Your task to perform on an android device: turn off notifications in google photos Image 0: 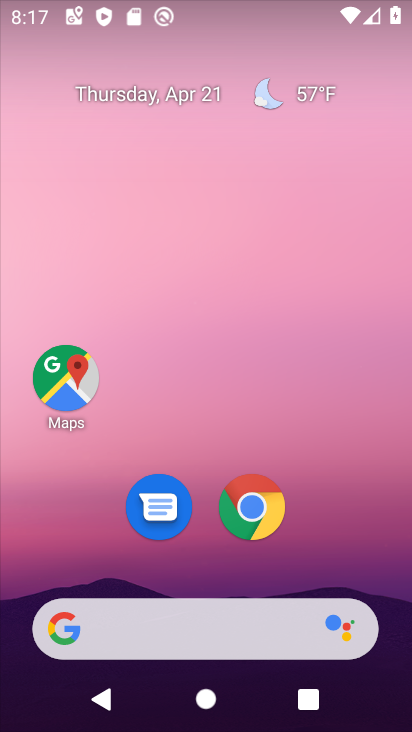
Step 0: drag from (344, 536) to (330, 25)
Your task to perform on an android device: turn off notifications in google photos Image 1: 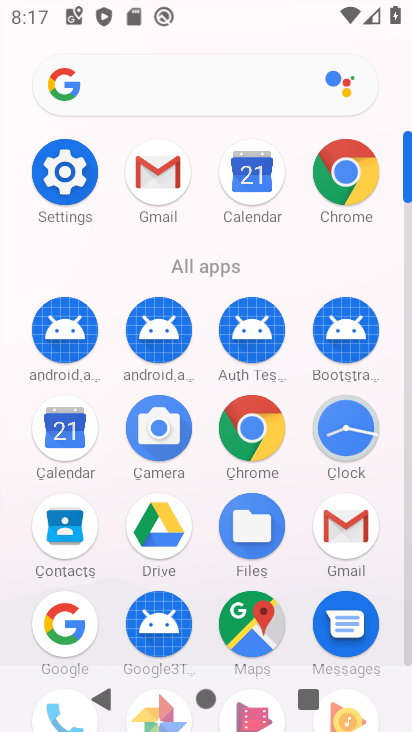
Step 1: click (403, 656)
Your task to perform on an android device: turn off notifications in google photos Image 2: 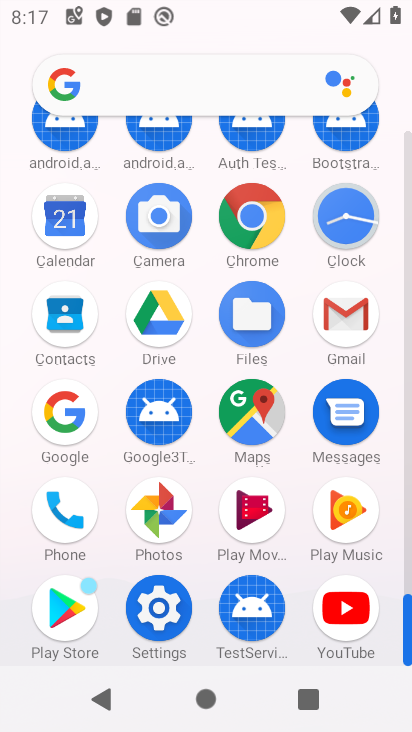
Step 2: click (141, 506)
Your task to perform on an android device: turn off notifications in google photos Image 3: 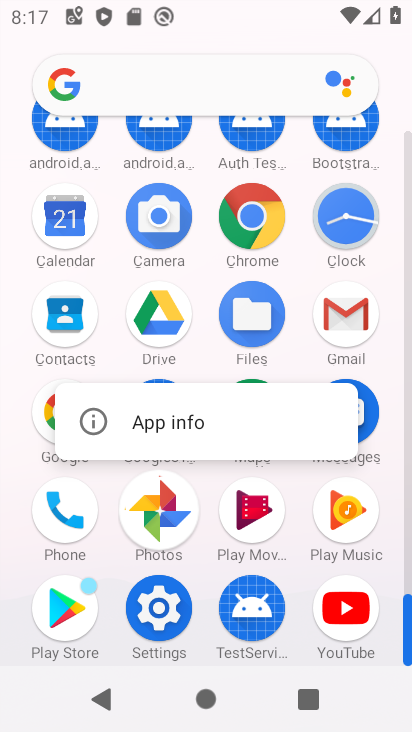
Step 3: click (150, 421)
Your task to perform on an android device: turn off notifications in google photos Image 4: 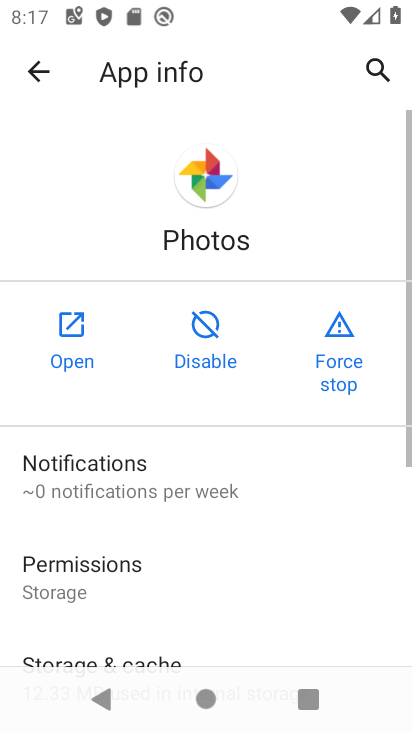
Step 4: click (146, 469)
Your task to perform on an android device: turn off notifications in google photos Image 5: 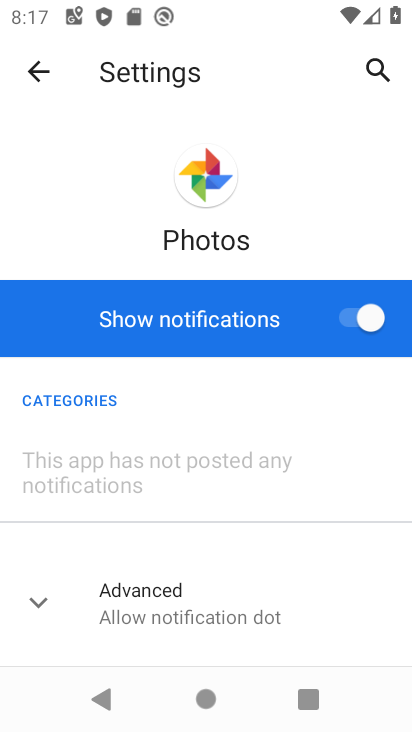
Step 5: click (369, 321)
Your task to perform on an android device: turn off notifications in google photos Image 6: 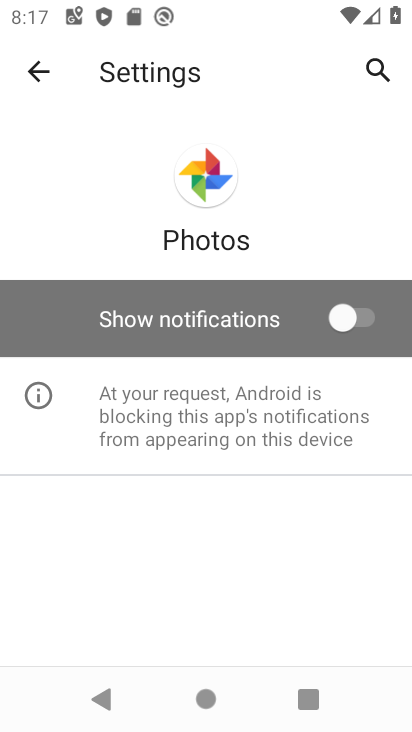
Step 6: task complete